Your task to perform on an android device: Open Google Maps and go to "Timeline" Image 0: 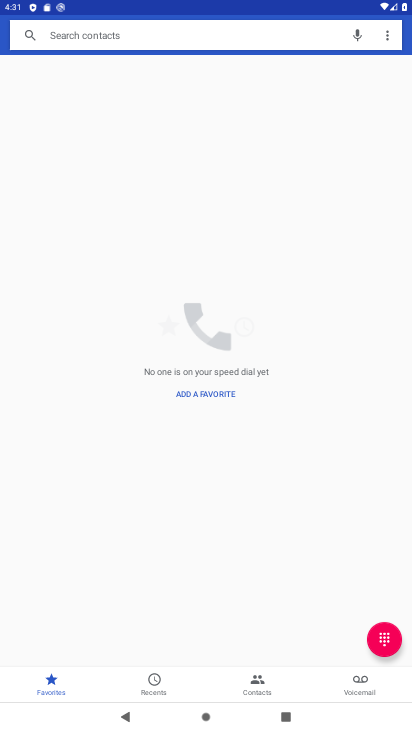
Step 0: press home button
Your task to perform on an android device: Open Google Maps and go to "Timeline" Image 1: 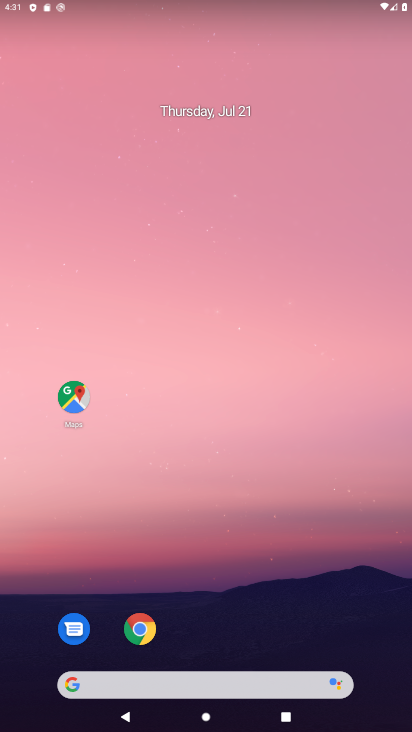
Step 1: click (76, 397)
Your task to perform on an android device: Open Google Maps and go to "Timeline" Image 2: 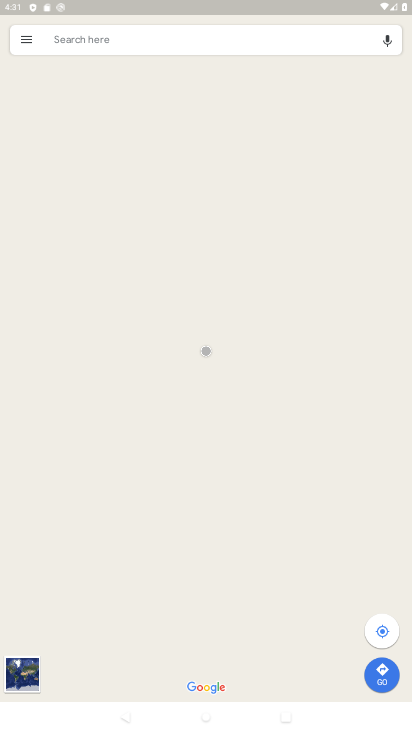
Step 2: click (26, 32)
Your task to perform on an android device: Open Google Maps and go to "Timeline" Image 3: 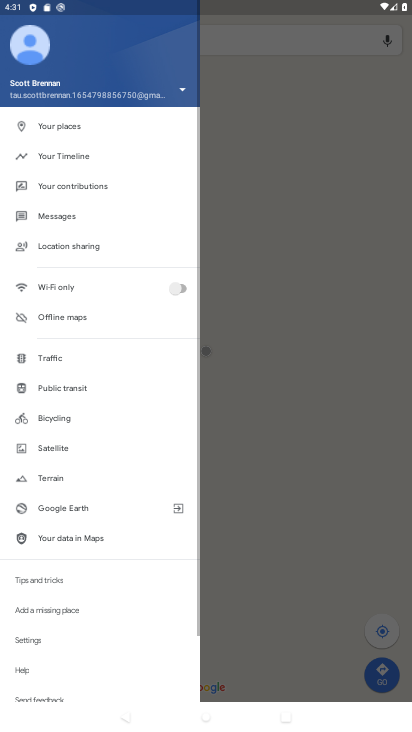
Step 3: click (67, 151)
Your task to perform on an android device: Open Google Maps and go to "Timeline" Image 4: 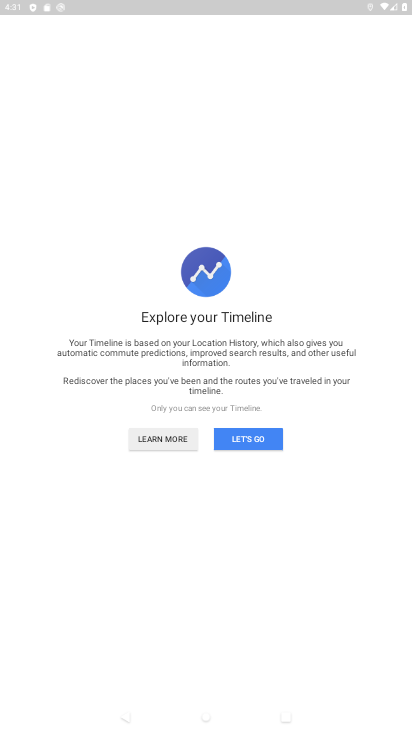
Step 4: click (251, 430)
Your task to perform on an android device: Open Google Maps and go to "Timeline" Image 5: 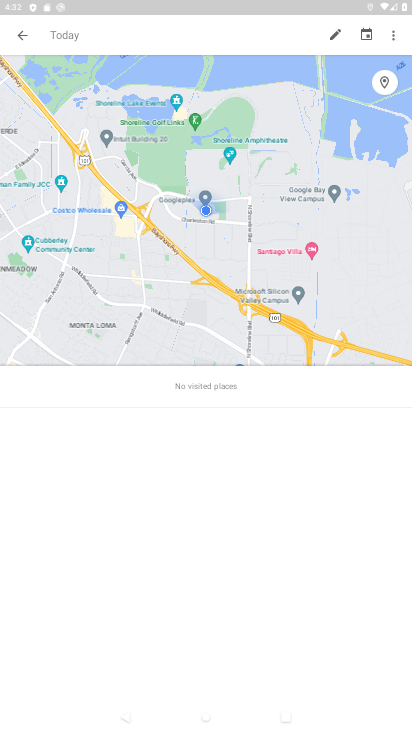
Step 5: task complete